Your task to perform on an android device: Open Yahoo.com Image 0: 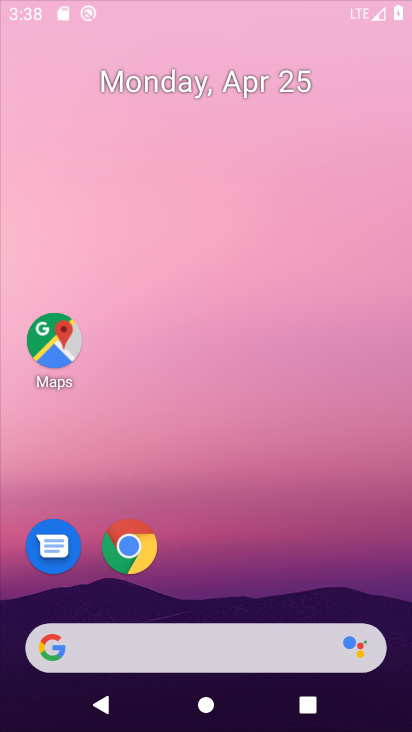
Step 0: drag from (323, 230) to (352, 6)
Your task to perform on an android device: Open Yahoo.com Image 1: 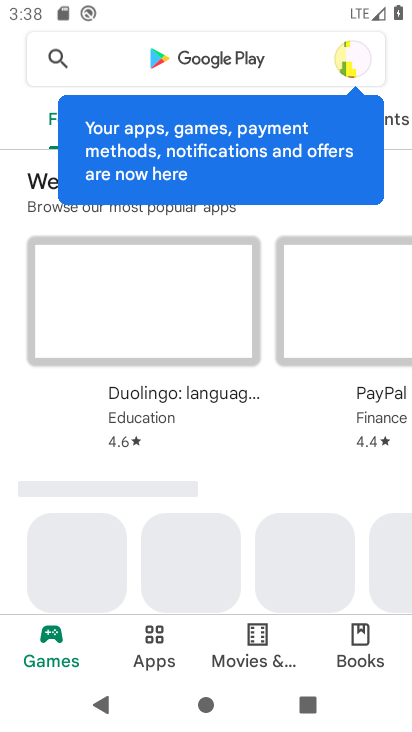
Step 1: press home button
Your task to perform on an android device: Open Yahoo.com Image 2: 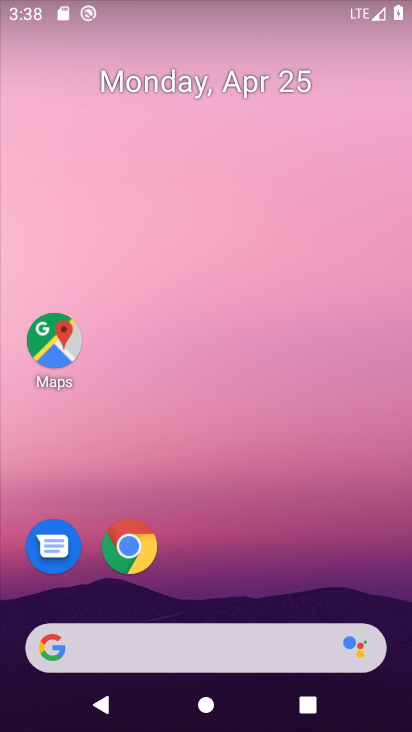
Step 2: click (126, 545)
Your task to perform on an android device: Open Yahoo.com Image 3: 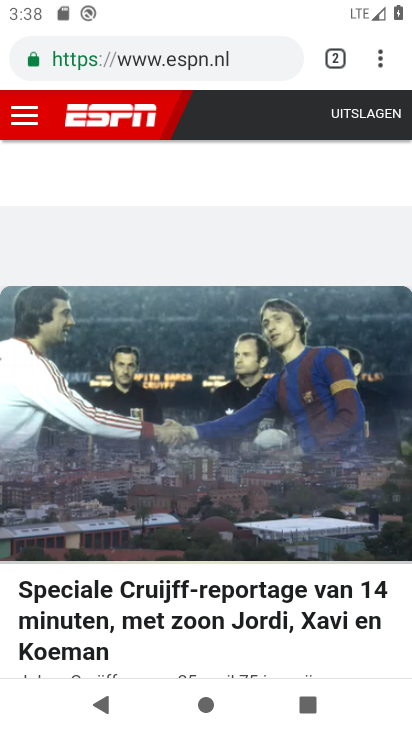
Step 3: click (201, 63)
Your task to perform on an android device: Open Yahoo.com Image 4: 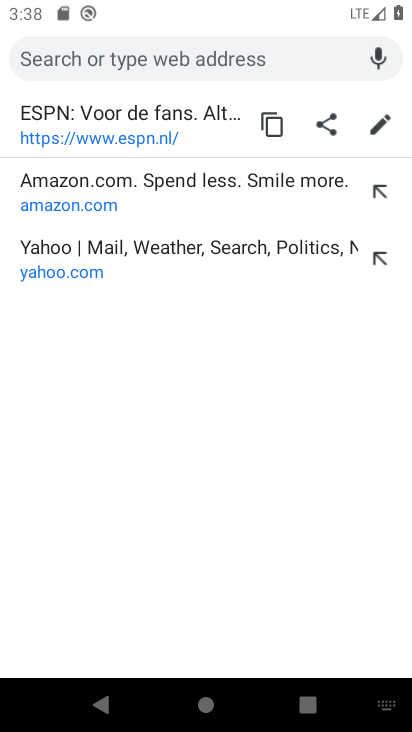
Step 4: type "yahoo.com"
Your task to perform on an android device: Open Yahoo.com Image 5: 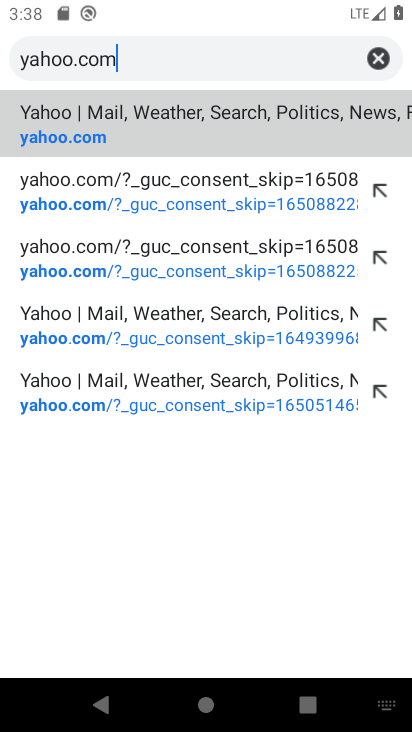
Step 5: click (101, 98)
Your task to perform on an android device: Open Yahoo.com Image 6: 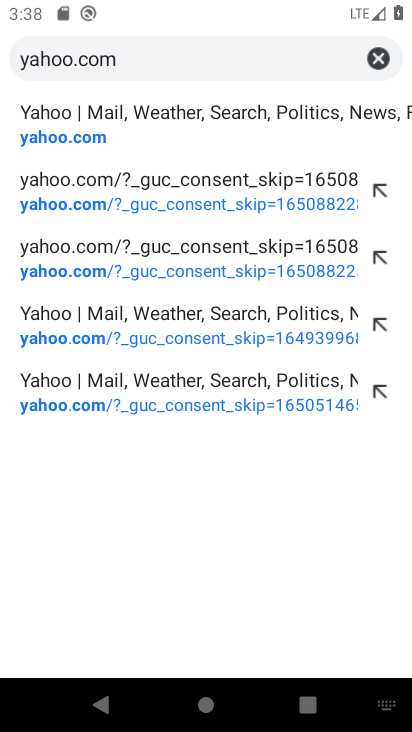
Step 6: click (83, 119)
Your task to perform on an android device: Open Yahoo.com Image 7: 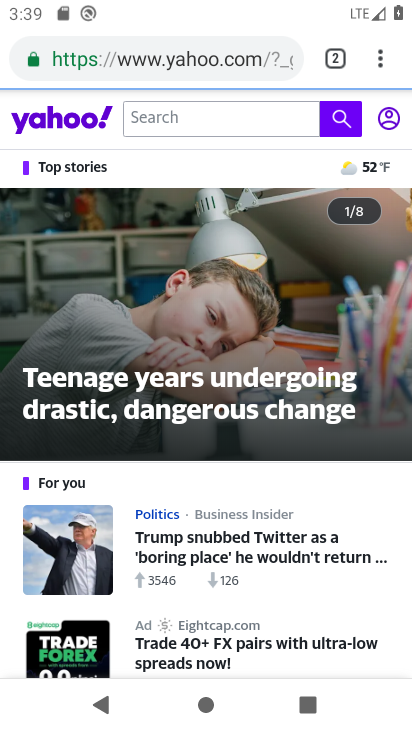
Step 7: task complete